Your task to perform on an android device: Open Yahoo.com Image 0: 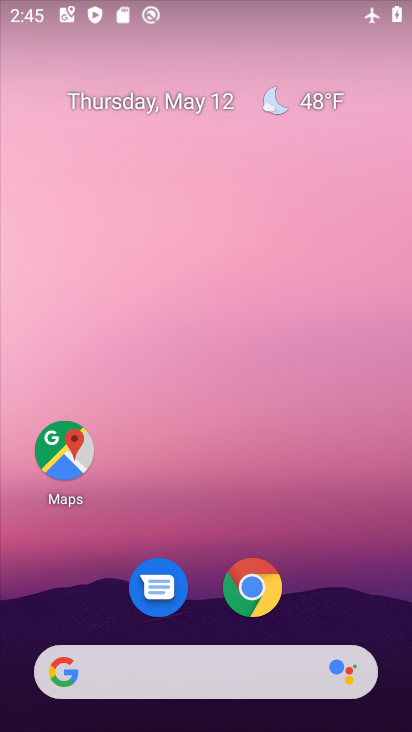
Step 0: drag from (242, 671) to (284, 127)
Your task to perform on an android device: Open Yahoo.com Image 1: 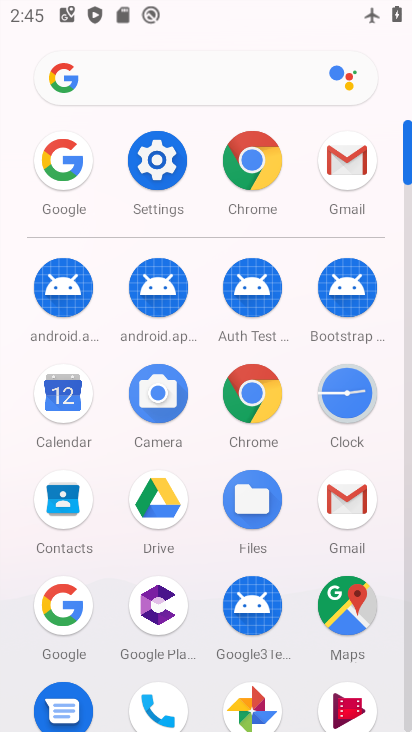
Step 1: click (254, 194)
Your task to perform on an android device: Open Yahoo.com Image 2: 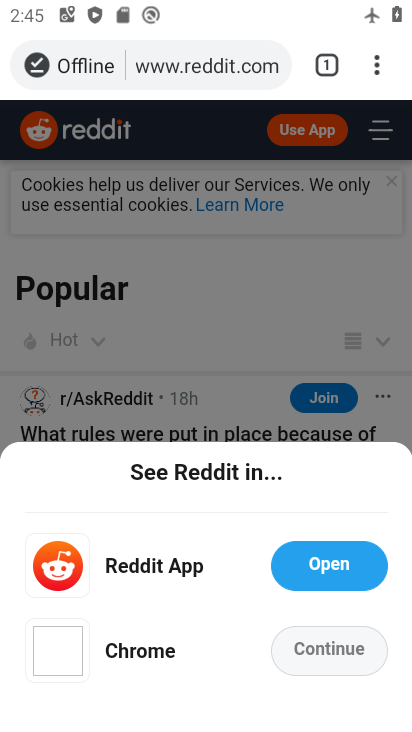
Step 2: click (239, 60)
Your task to perform on an android device: Open Yahoo.com Image 3: 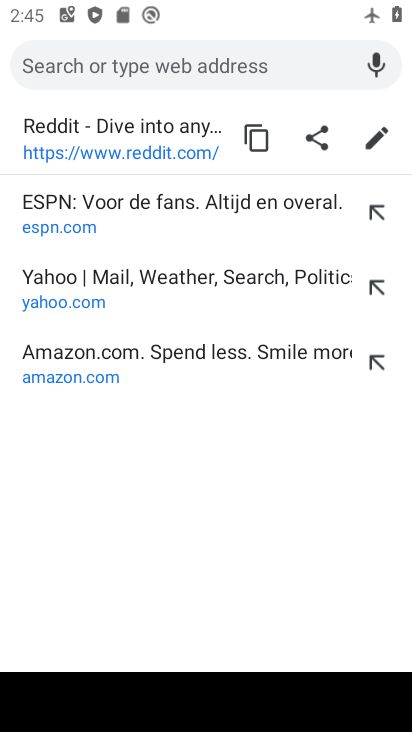
Step 3: click (151, 284)
Your task to perform on an android device: Open Yahoo.com Image 4: 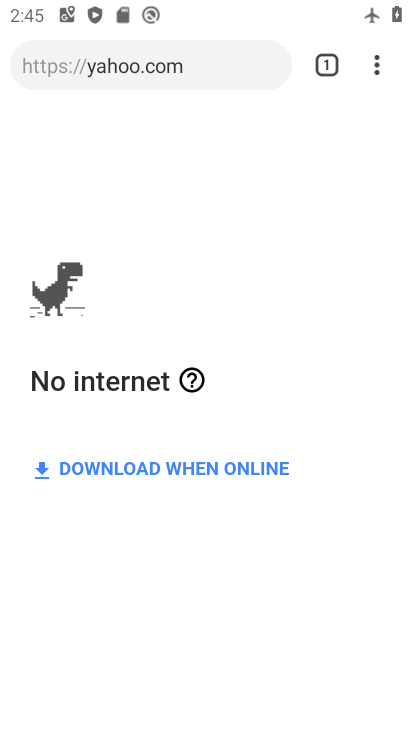
Step 4: task complete